Your task to perform on an android device: turn off translation in the chrome app Image 0: 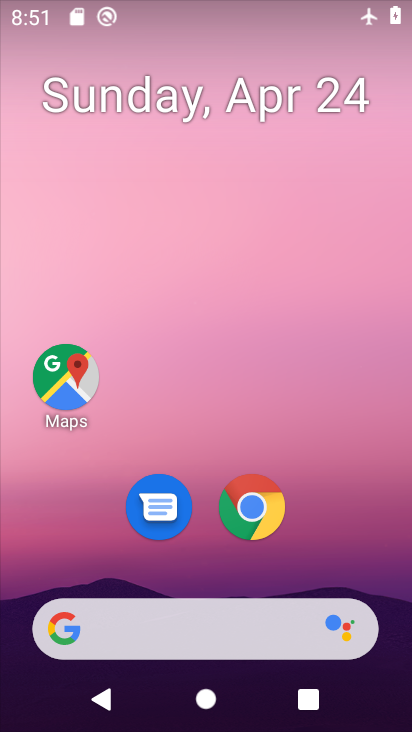
Step 0: click (268, 506)
Your task to perform on an android device: turn off translation in the chrome app Image 1: 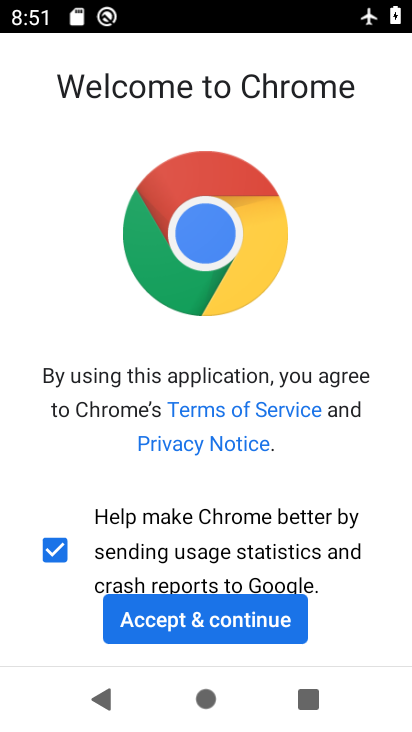
Step 1: click (256, 630)
Your task to perform on an android device: turn off translation in the chrome app Image 2: 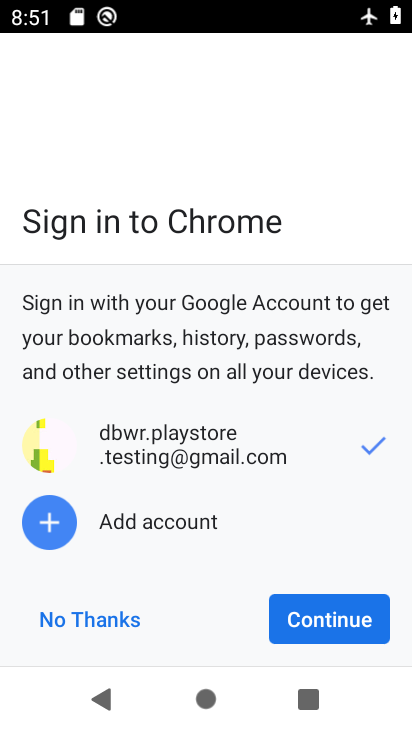
Step 2: click (349, 607)
Your task to perform on an android device: turn off translation in the chrome app Image 3: 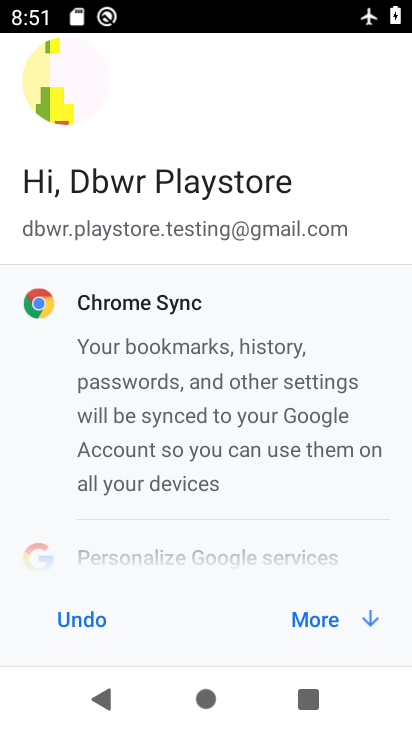
Step 3: click (328, 602)
Your task to perform on an android device: turn off translation in the chrome app Image 4: 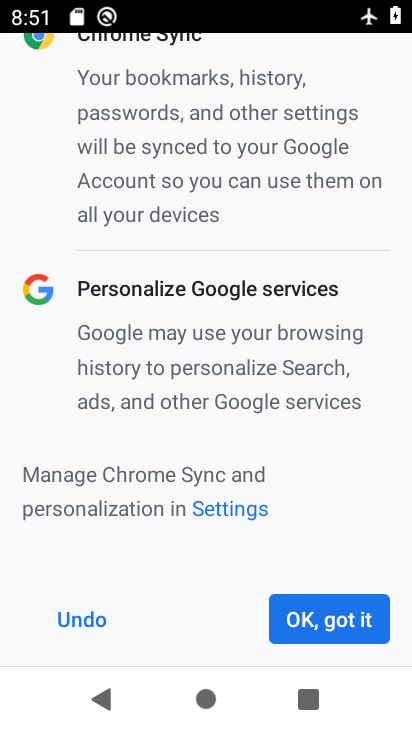
Step 4: click (328, 602)
Your task to perform on an android device: turn off translation in the chrome app Image 5: 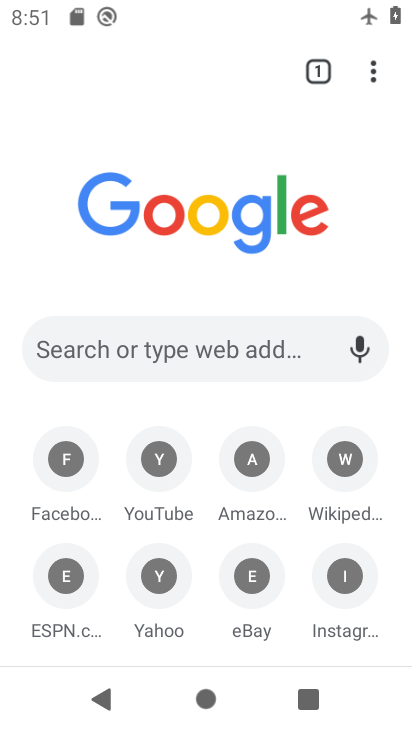
Step 5: click (374, 80)
Your task to perform on an android device: turn off translation in the chrome app Image 6: 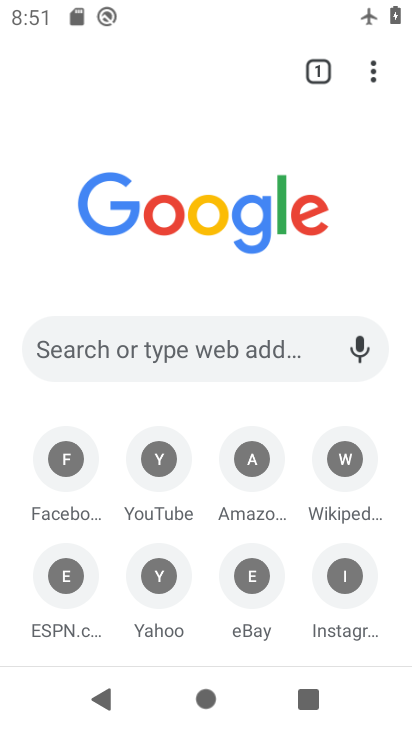
Step 6: click (374, 78)
Your task to perform on an android device: turn off translation in the chrome app Image 7: 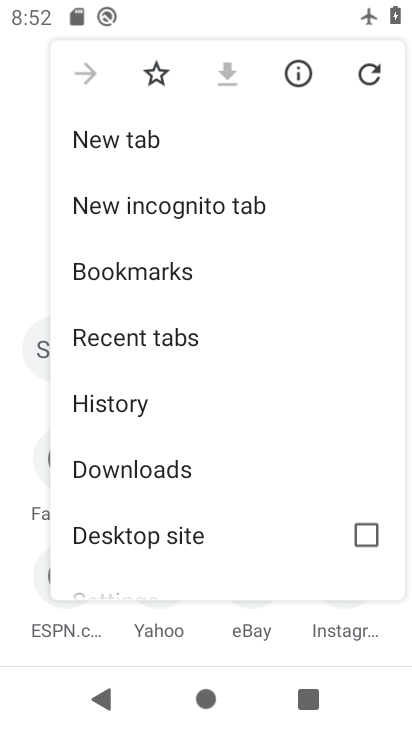
Step 7: drag from (219, 525) to (213, 250)
Your task to perform on an android device: turn off translation in the chrome app Image 8: 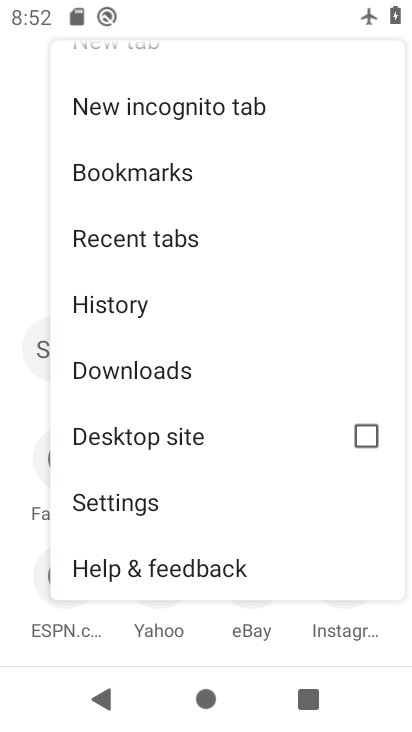
Step 8: click (104, 498)
Your task to perform on an android device: turn off translation in the chrome app Image 9: 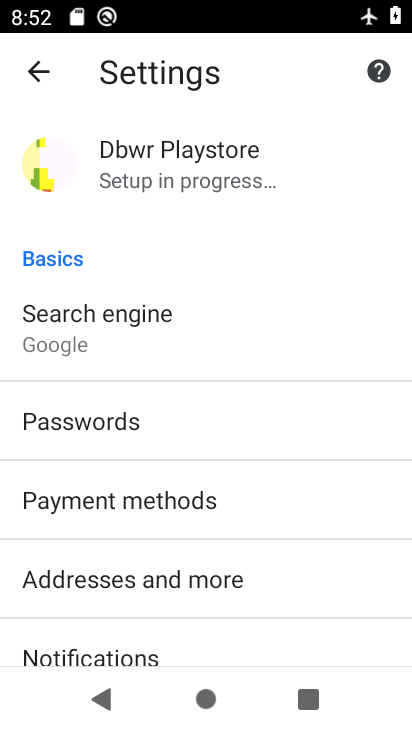
Step 9: drag from (259, 565) to (235, 146)
Your task to perform on an android device: turn off translation in the chrome app Image 10: 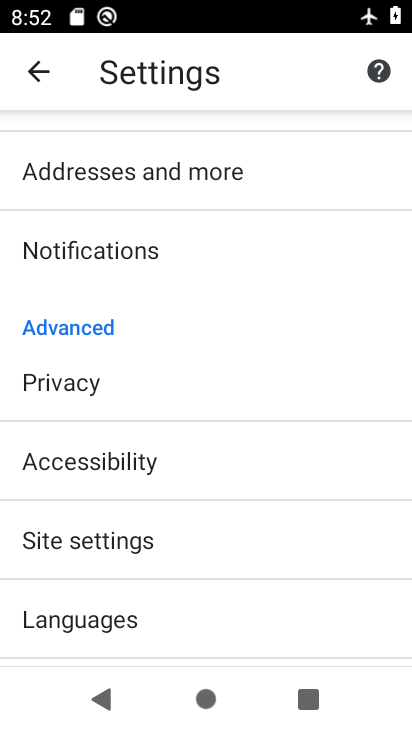
Step 10: drag from (175, 593) to (155, 351)
Your task to perform on an android device: turn off translation in the chrome app Image 11: 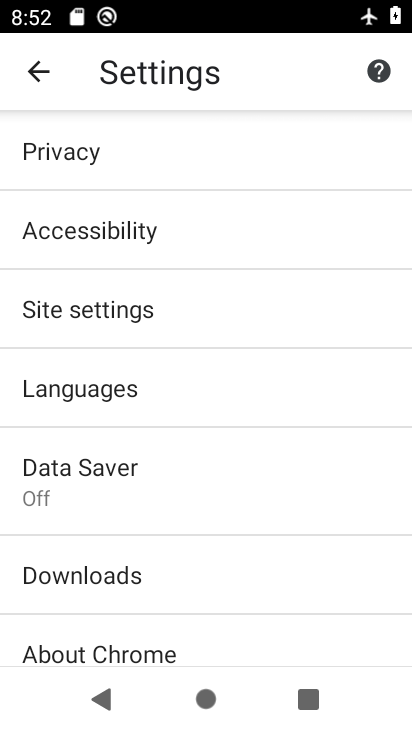
Step 11: click (137, 404)
Your task to perform on an android device: turn off translation in the chrome app Image 12: 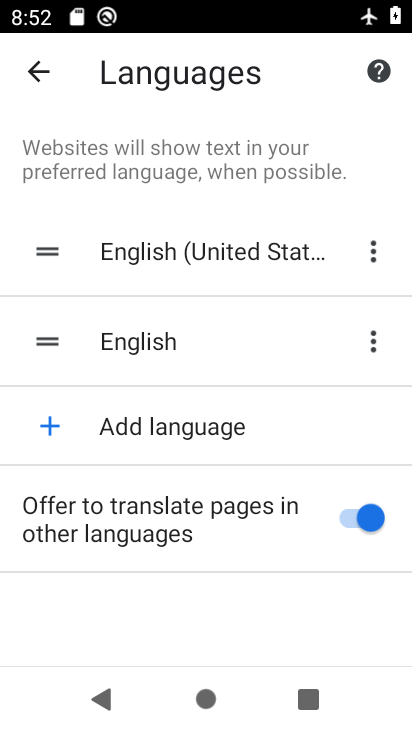
Step 12: click (350, 506)
Your task to perform on an android device: turn off translation in the chrome app Image 13: 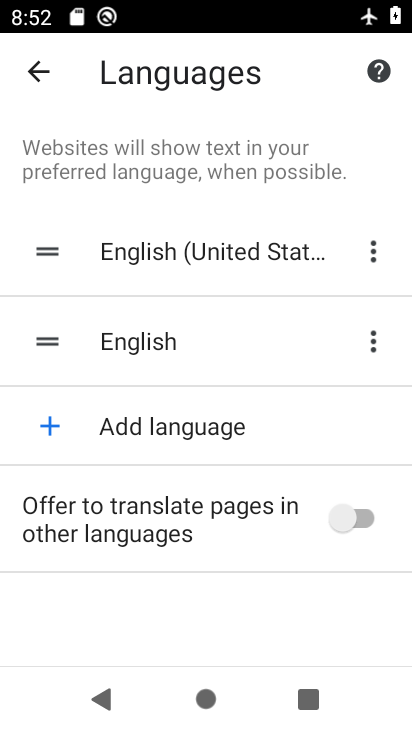
Step 13: task complete